Your task to perform on an android device: open the mobile data screen to see how much data has been used Image 0: 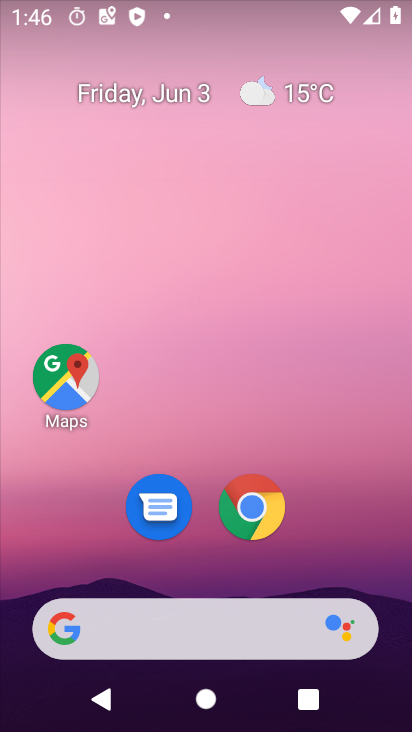
Step 0: drag from (397, 612) to (291, 14)
Your task to perform on an android device: open the mobile data screen to see how much data has been used Image 1: 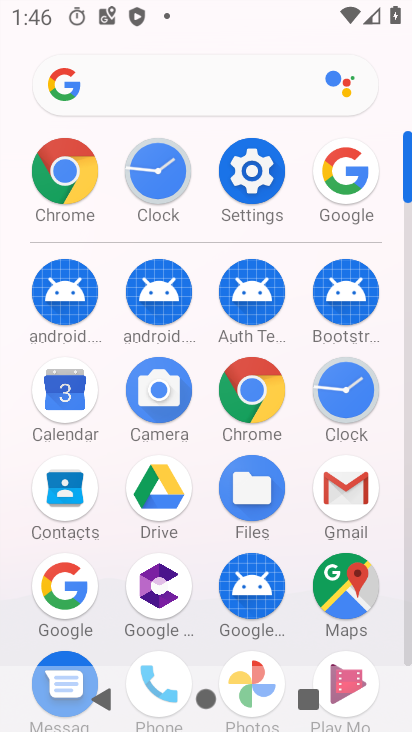
Step 1: click (251, 163)
Your task to perform on an android device: open the mobile data screen to see how much data has been used Image 2: 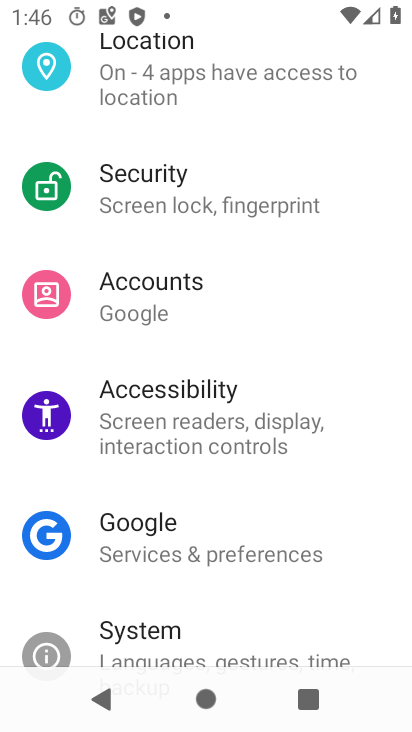
Step 2: drag from (190, 157) to (256, 645)
Your task to perform on an android device: open the mobile data screen to see how much data has been used Image 3: 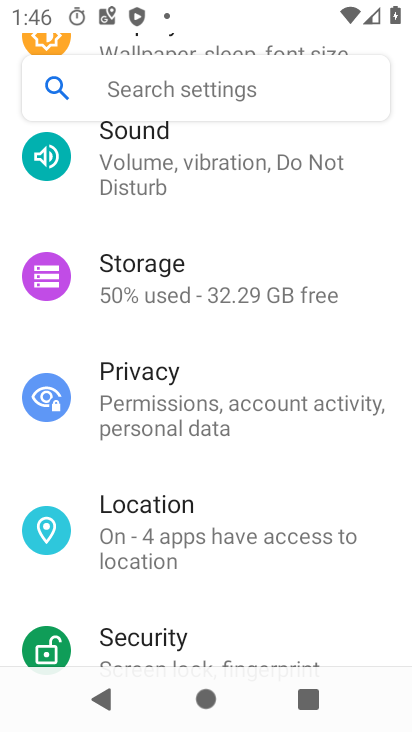
Step 3: drag from (182, 184) to (298, 680)
Your task to perform on an android device: open the mobile data screen to see how much data has been used Image 4: 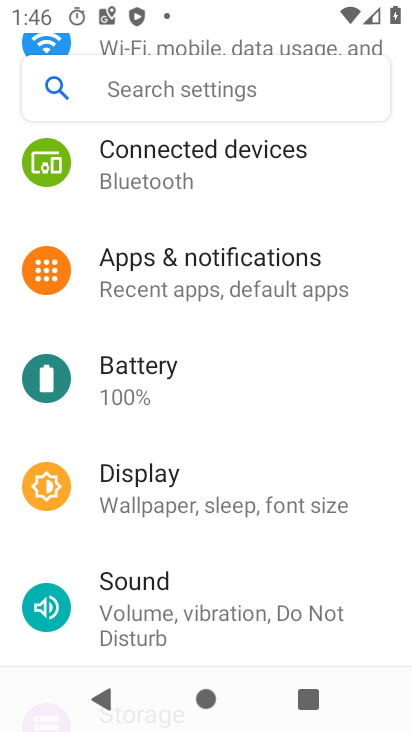
Step 4: drag from (206, 189) to (266, 587)
Your task to perform on an android device: open the mobile data screen to see how much data has been used Image 5: 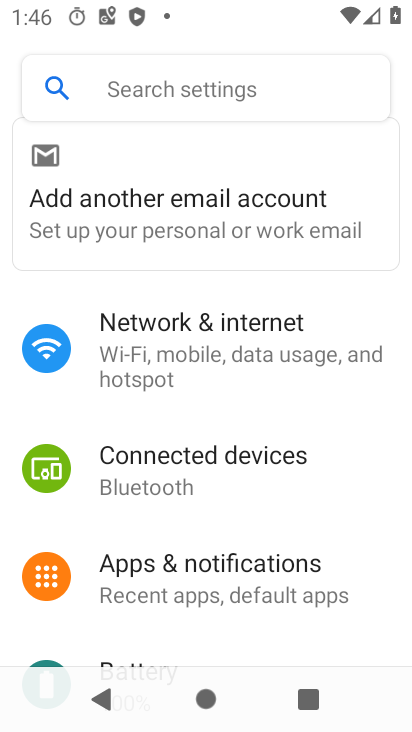
Step 5: click (216, 349)
Your task to perform on an android device: open the mobile data screen to see how much data has been used Image 6: 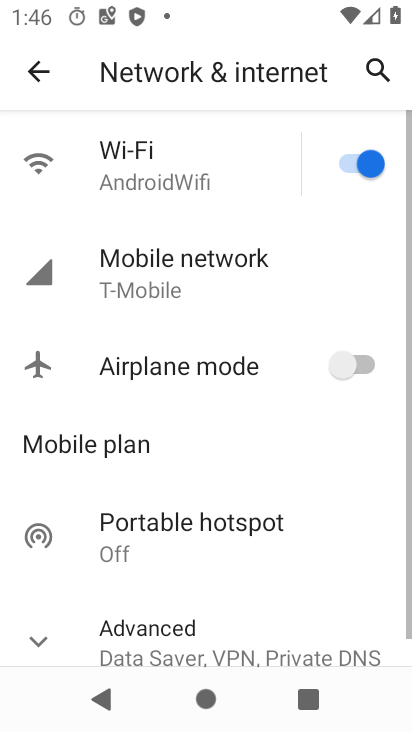
Step 6: click (203, 297)
Your task to perform on an android device: open the mobile data screen to see how much data has been used Image 7: 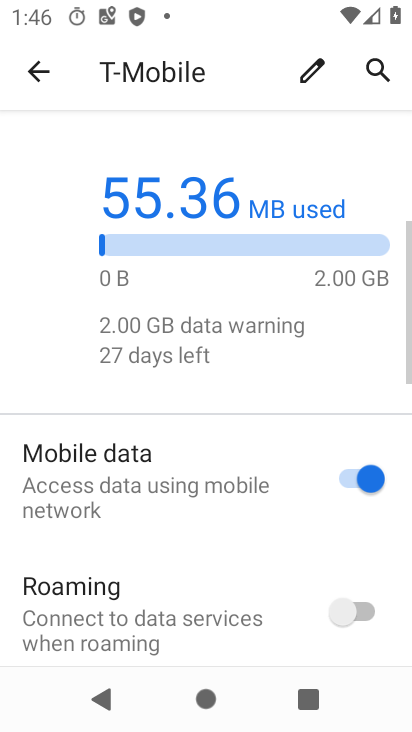
Step 7: drag from (208, 636) to (282, 136)
Your task to perform on an android device: open the mobile data screen to see how much data has been used Image 8: 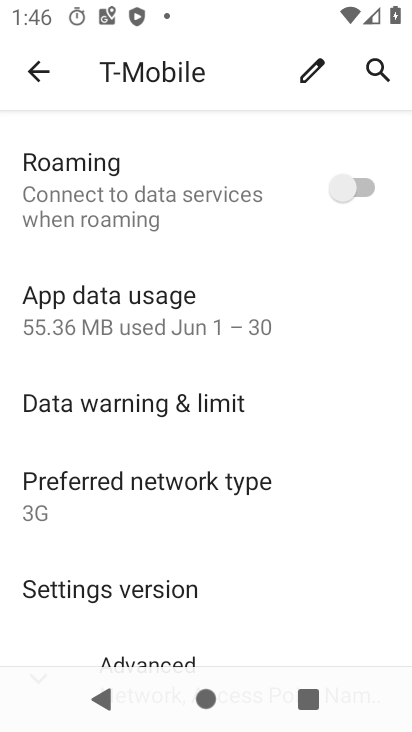
Step 8: click (188, 316)
Your task to perform on an android device: open the mobile data screen to see how much data has been used Image 9: 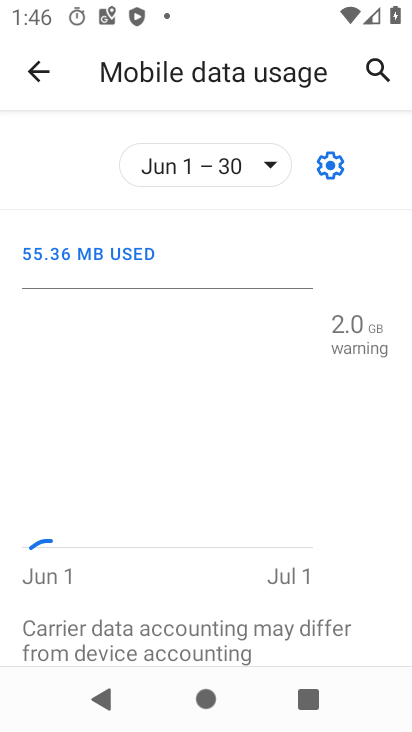
Step 9: task complete